Your task to perform on an android device: Add "razer blade" to the cart on amazon.com Image 0: 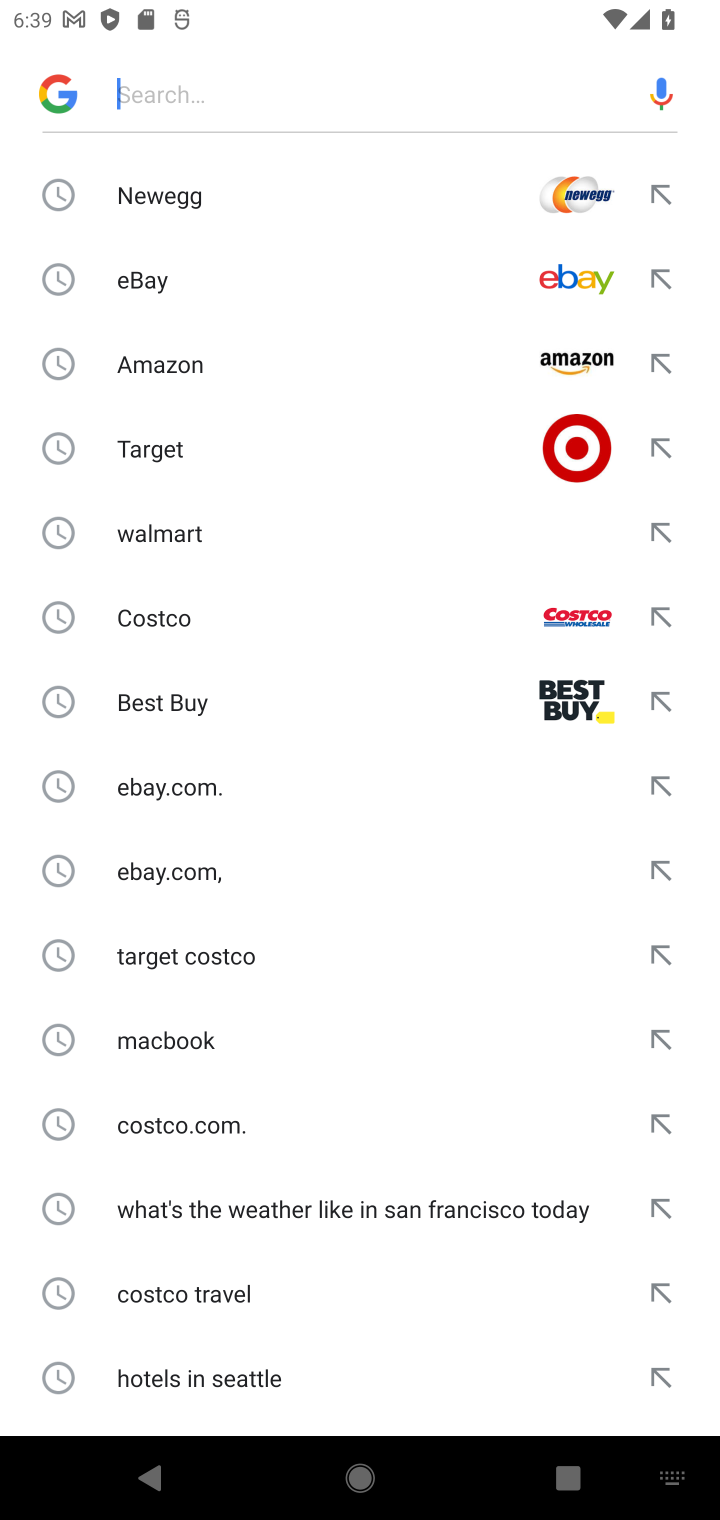
Step 0: press home button
Your task to perform on an android device: Add "razer blade" to the cart on amazon.com Image 1: 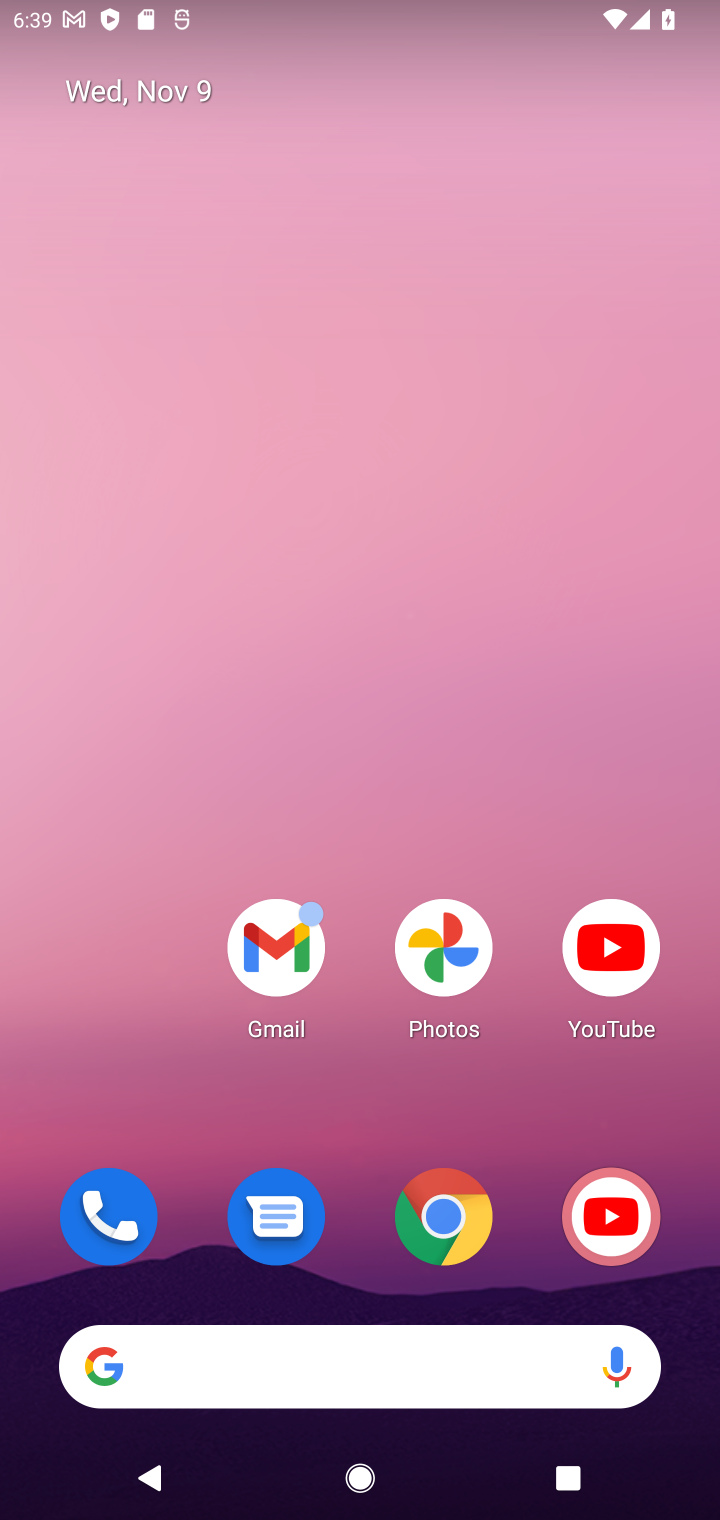
Step 1: drag from (345, 1181) to (392, 317)
Your task to perform on an android device: Add "razer blade" to the cart on amazon.com Image 2: 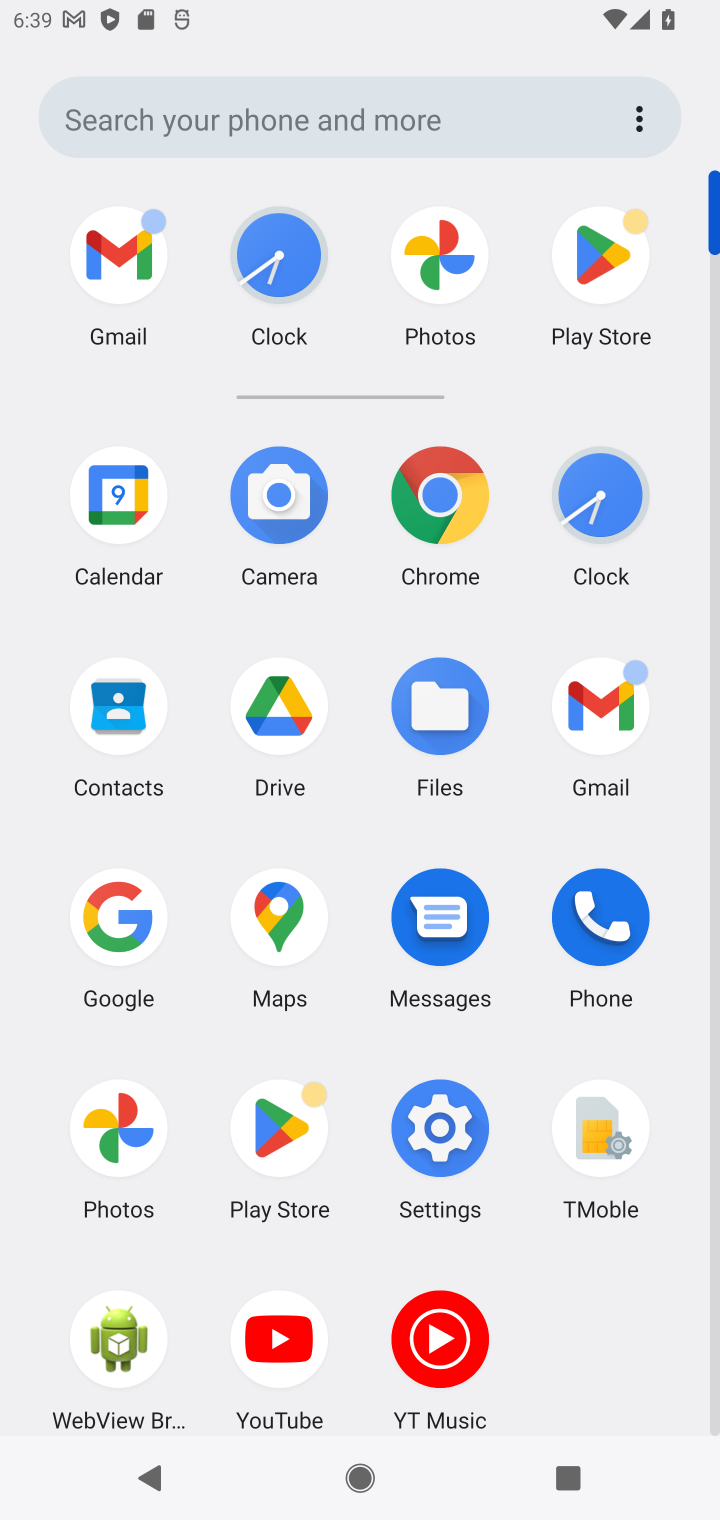
Step 2: click (438, 506)
Your task to perform on an android device: Add "razer blade" to the cart on amazon.com Image 3: 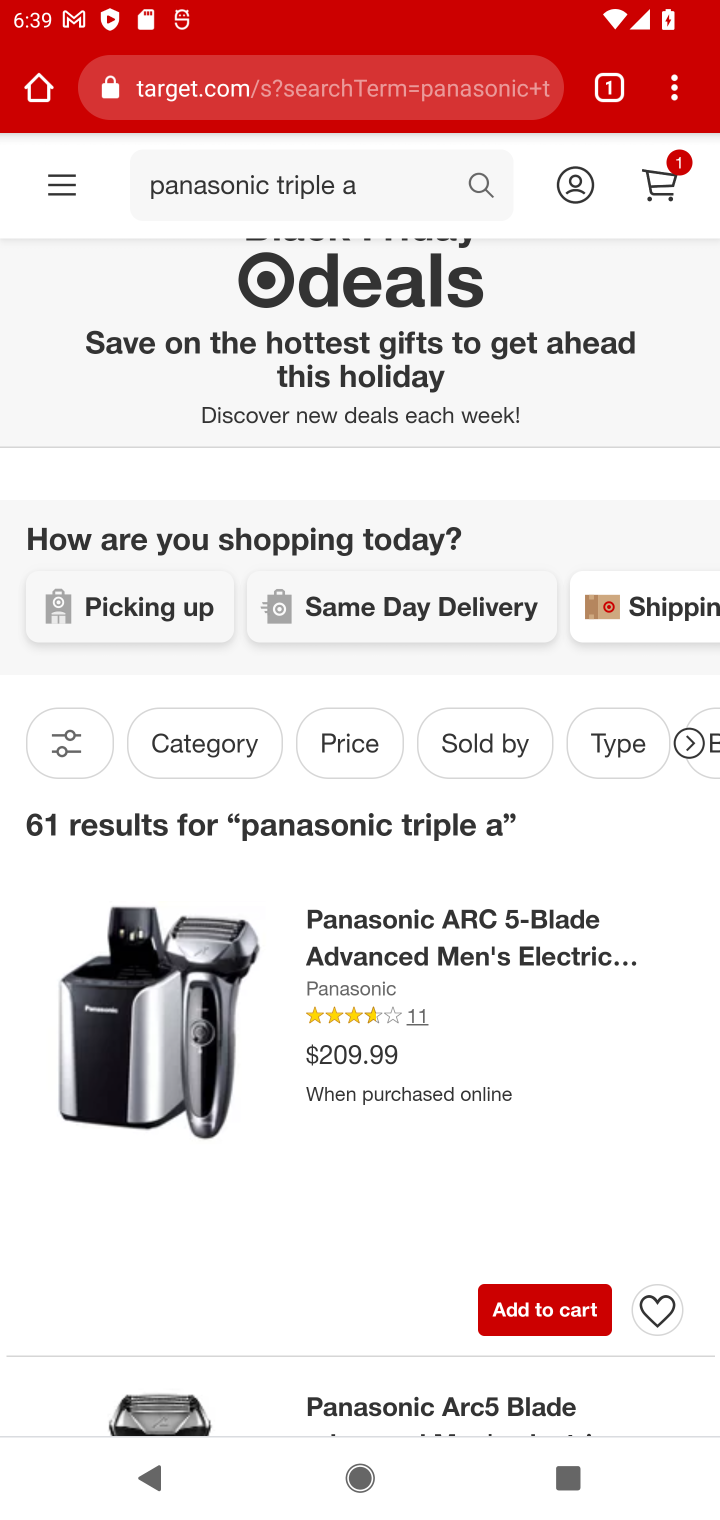
Step 3: click (400, 79)
Your task to perform on an android device: Add "razer blade" to the cart on amazon.com Image 4: 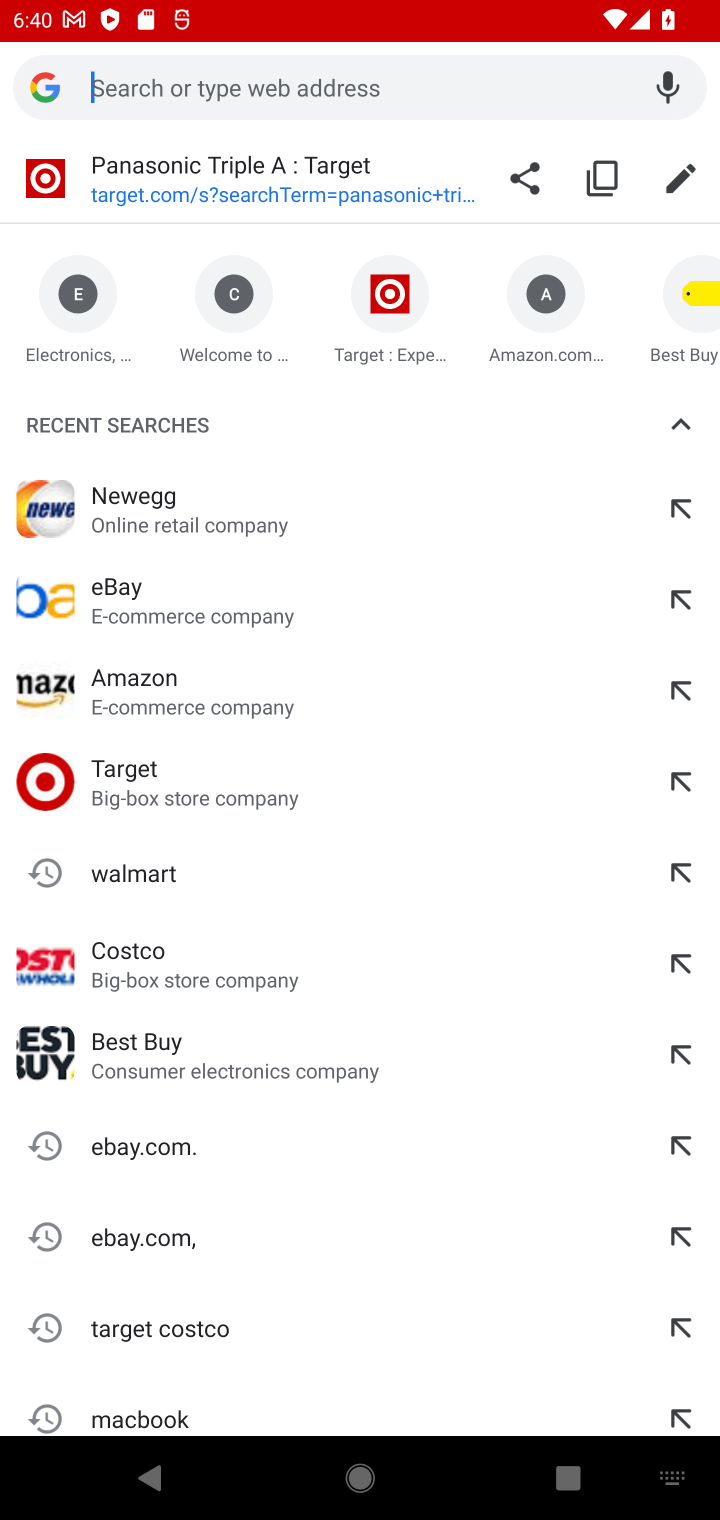
Step 4: type "amazon.com"
Your task to perform on an android device: Add "razer blade" to the cart on amazon.com Image 5: 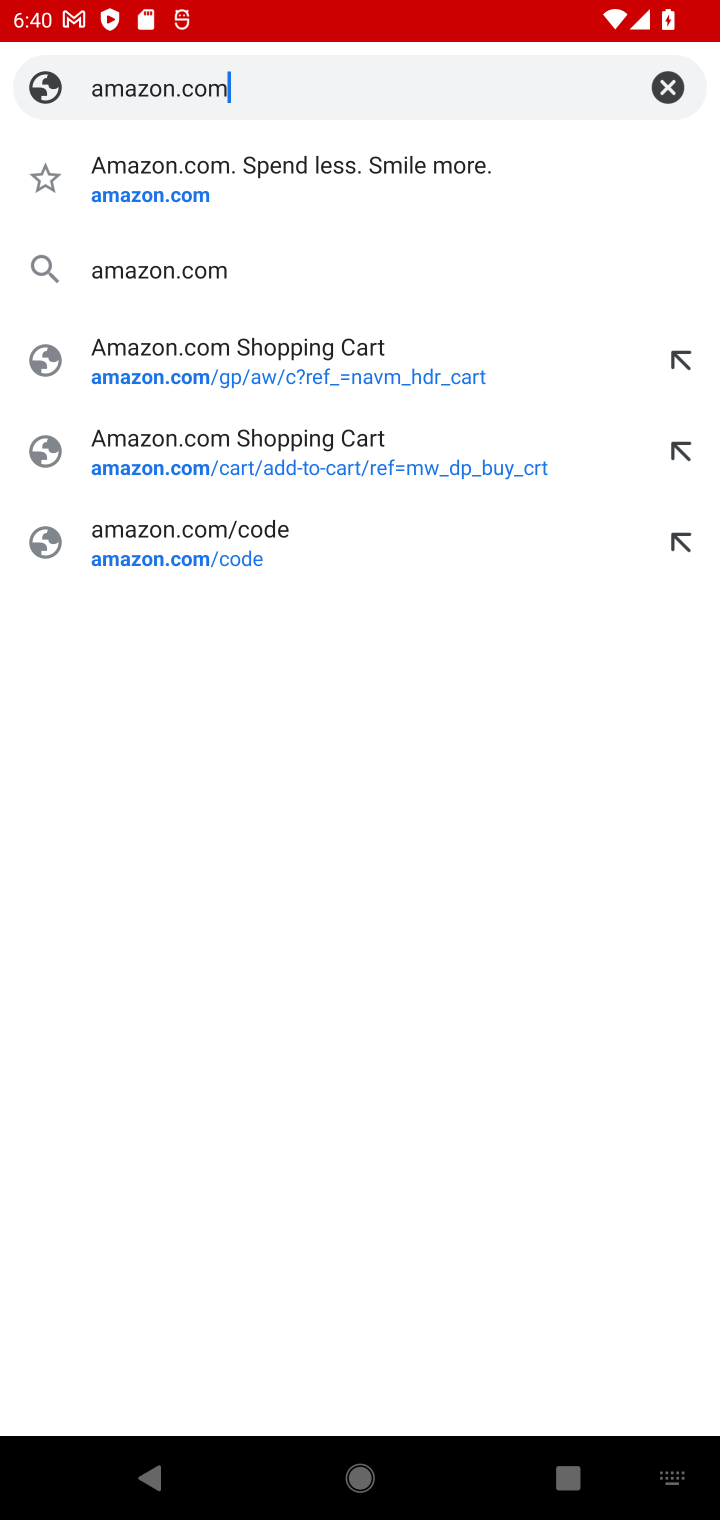
Step 5: press enter
Your task to perform on an android device: Add "razer blade" to the cart on amazon.com Image 6: 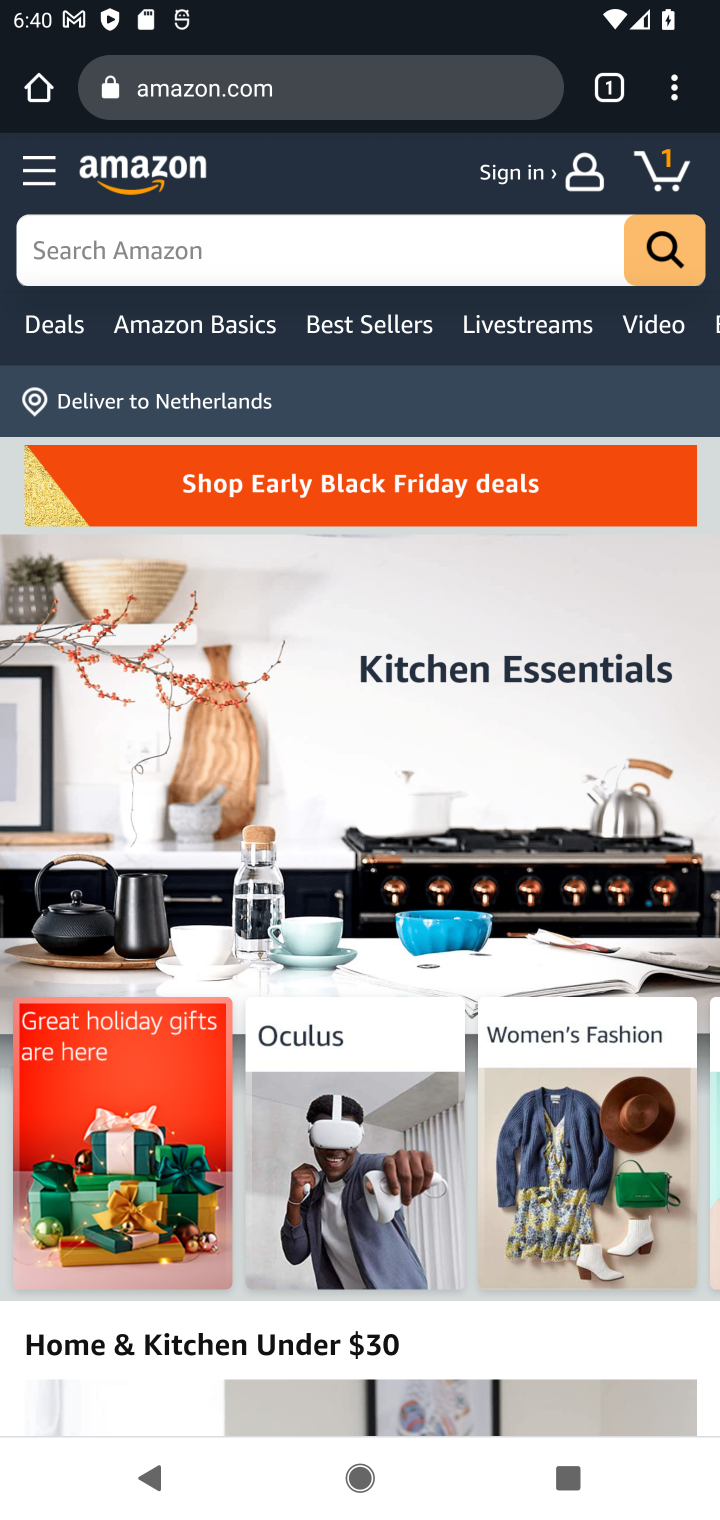
Step 6: click (458, 272)
Your task to perform on an android device: Add "razer blade" to the cart on amazon.com Image 7: 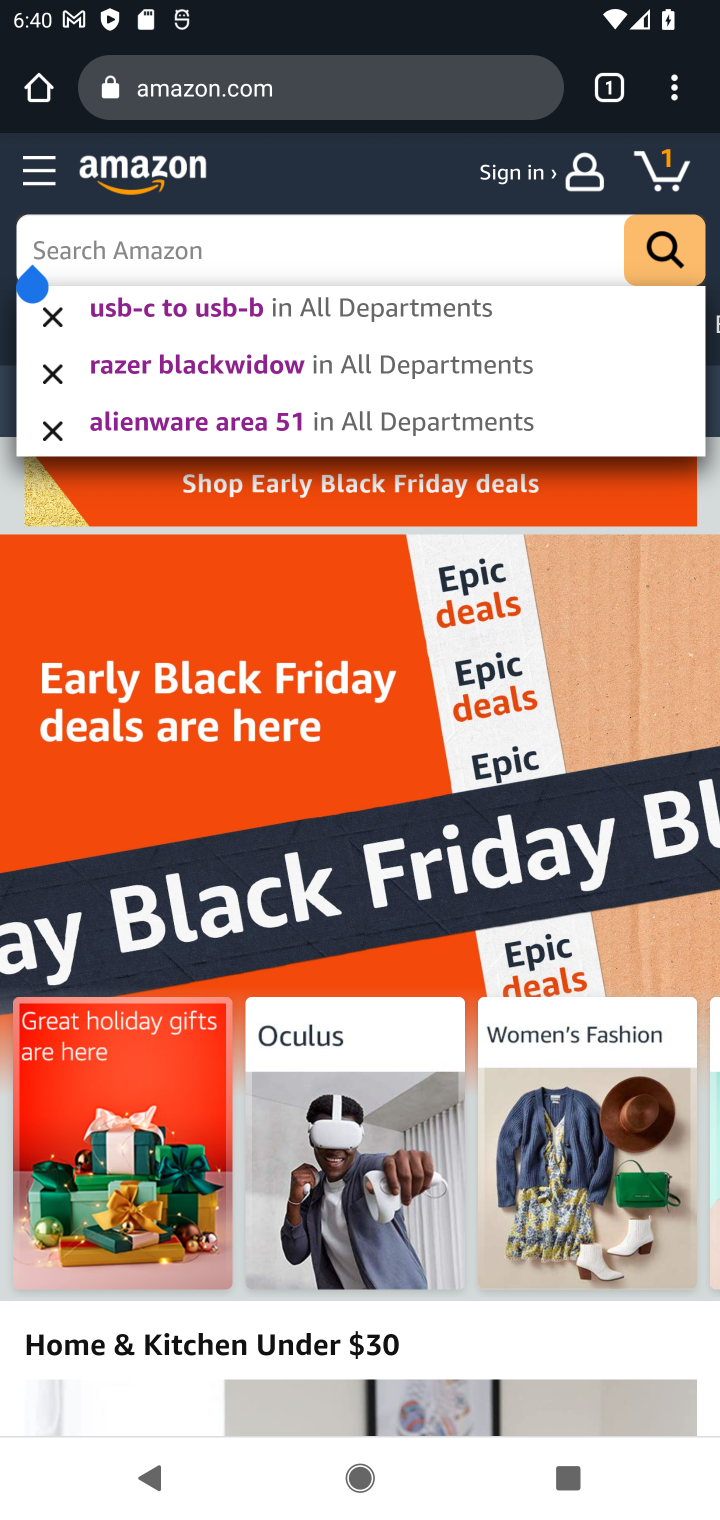
Step 7: type "razer blade"
Your task to perform on an android device: Add "razer blade" to the cart on amazon.com Image 8: 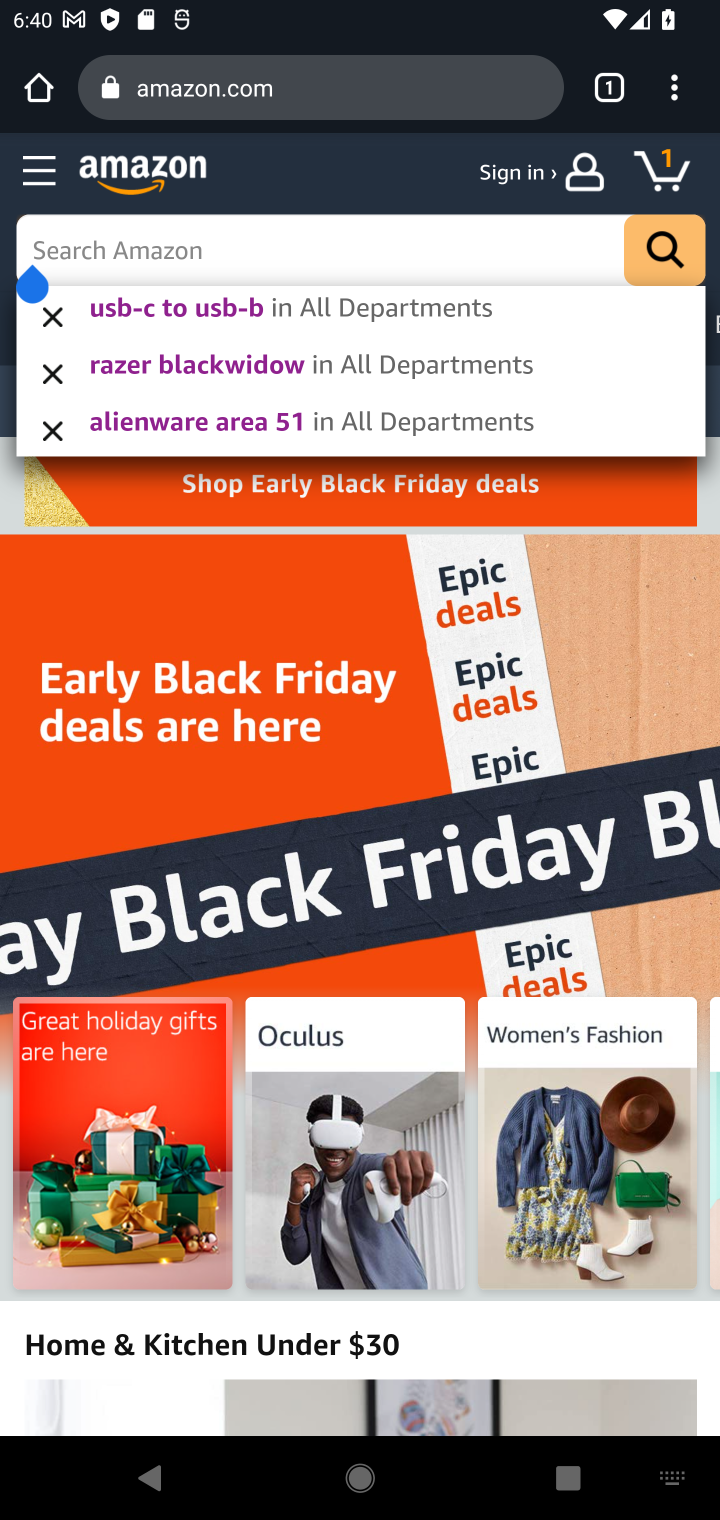
Step 8: press enter
Your task to perform on an android device: Add "razer blade" to the cart on amazon.com Image 9: 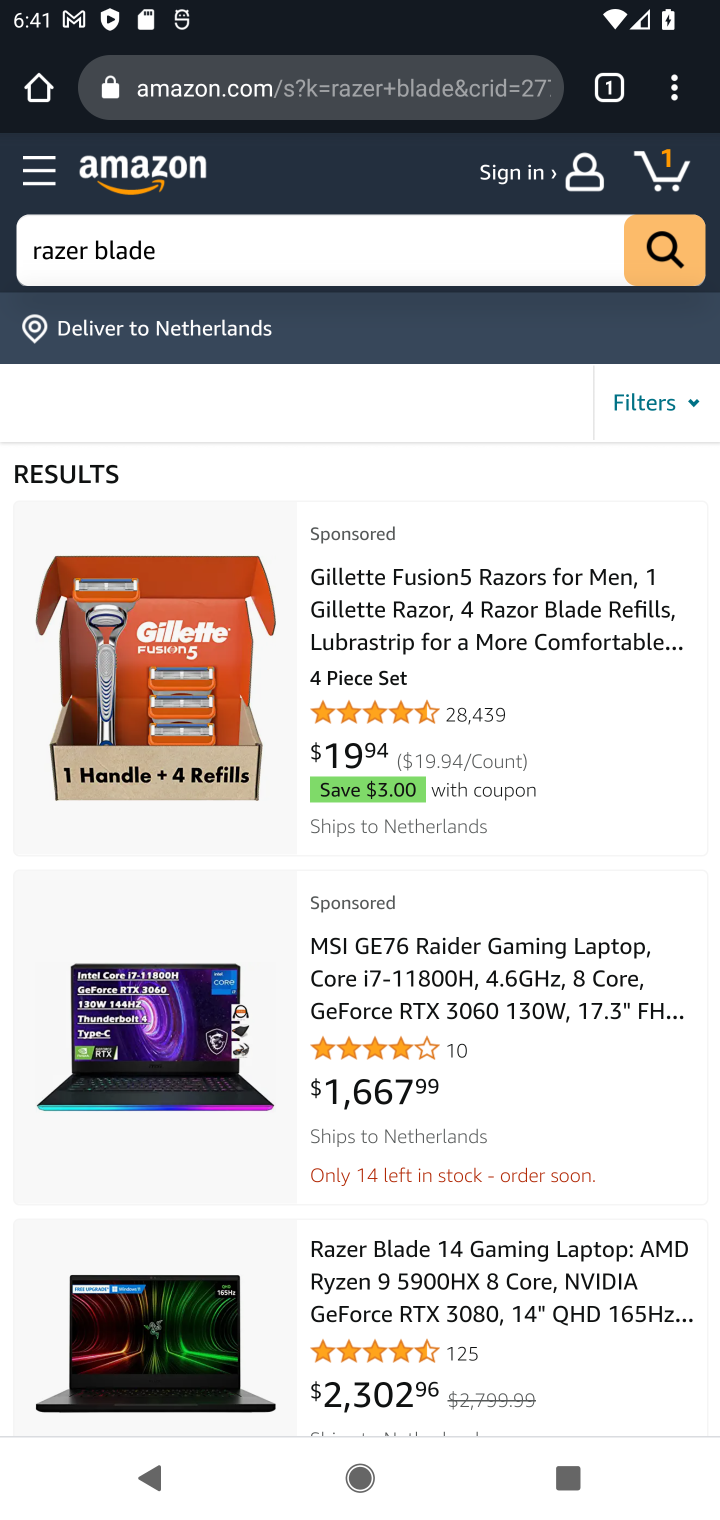
Step 9: drag from (556, 923) to (621, 591)
Your task to perform on an android device: Add "razer blade" to the cart on amazon.com Image 10: 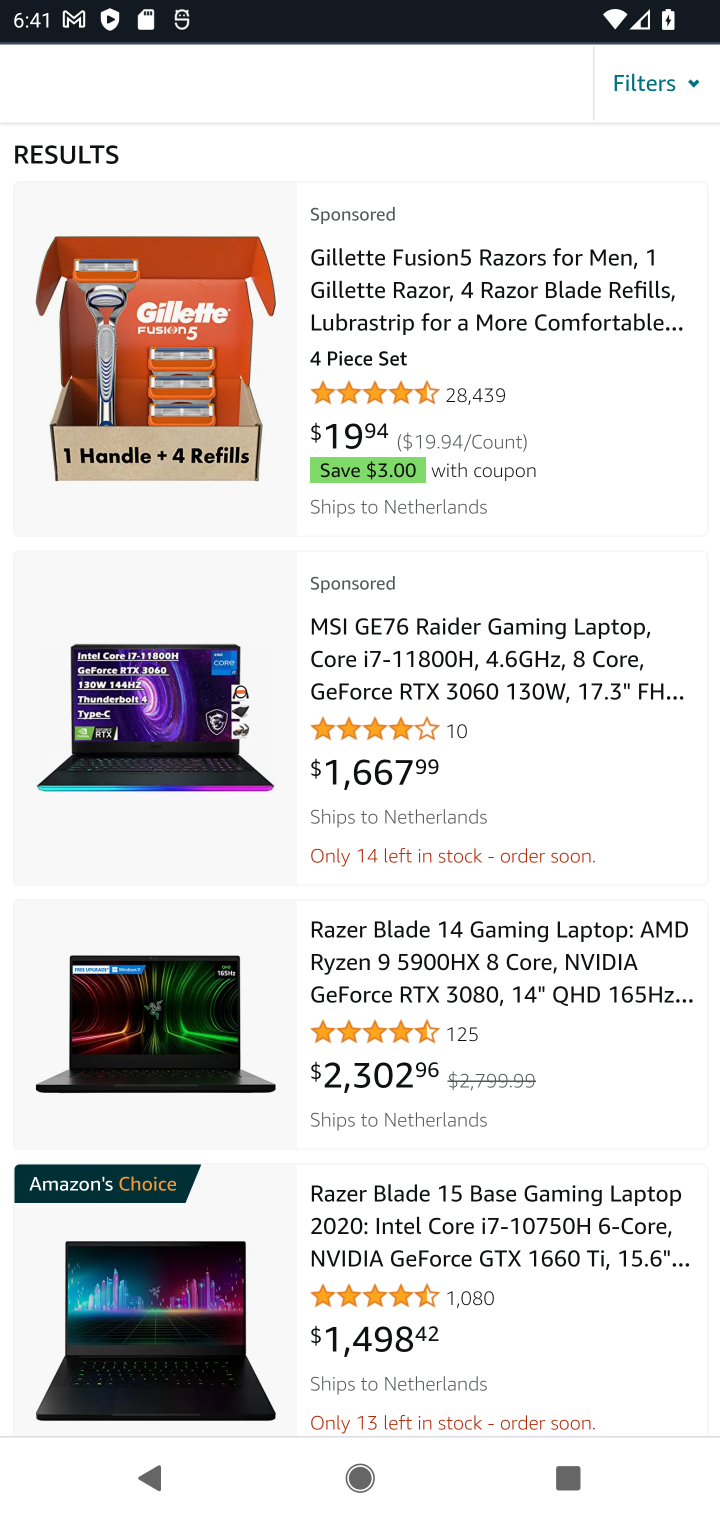
Step 10: click (441, 959)
Your task to perform on an android device: Add "razer blade" to the cart on amazon.com Image 11: 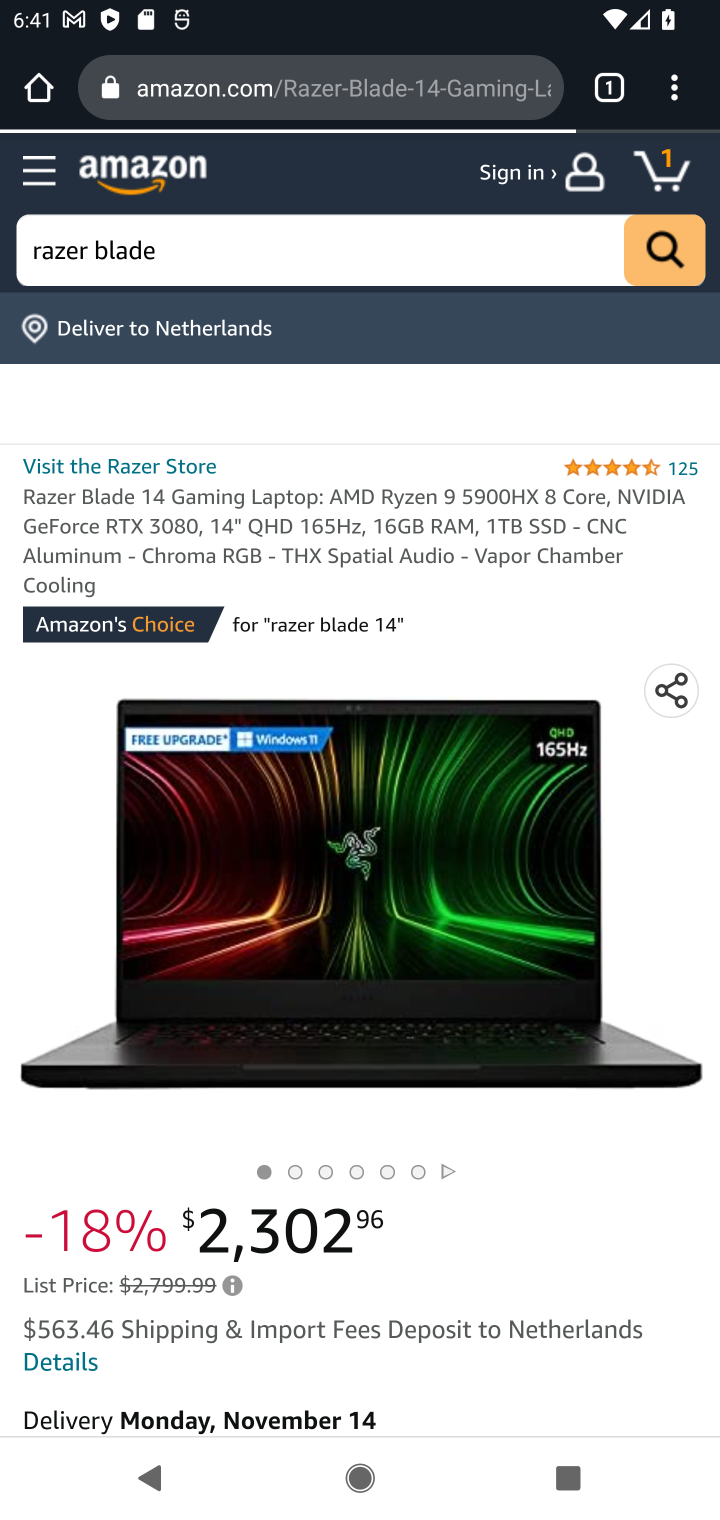
Step 11: drag from (459, 1120) to (502, 572)
Your task to perform on an android device: Add "razer blade" to the cart on amazon.com Image 12: 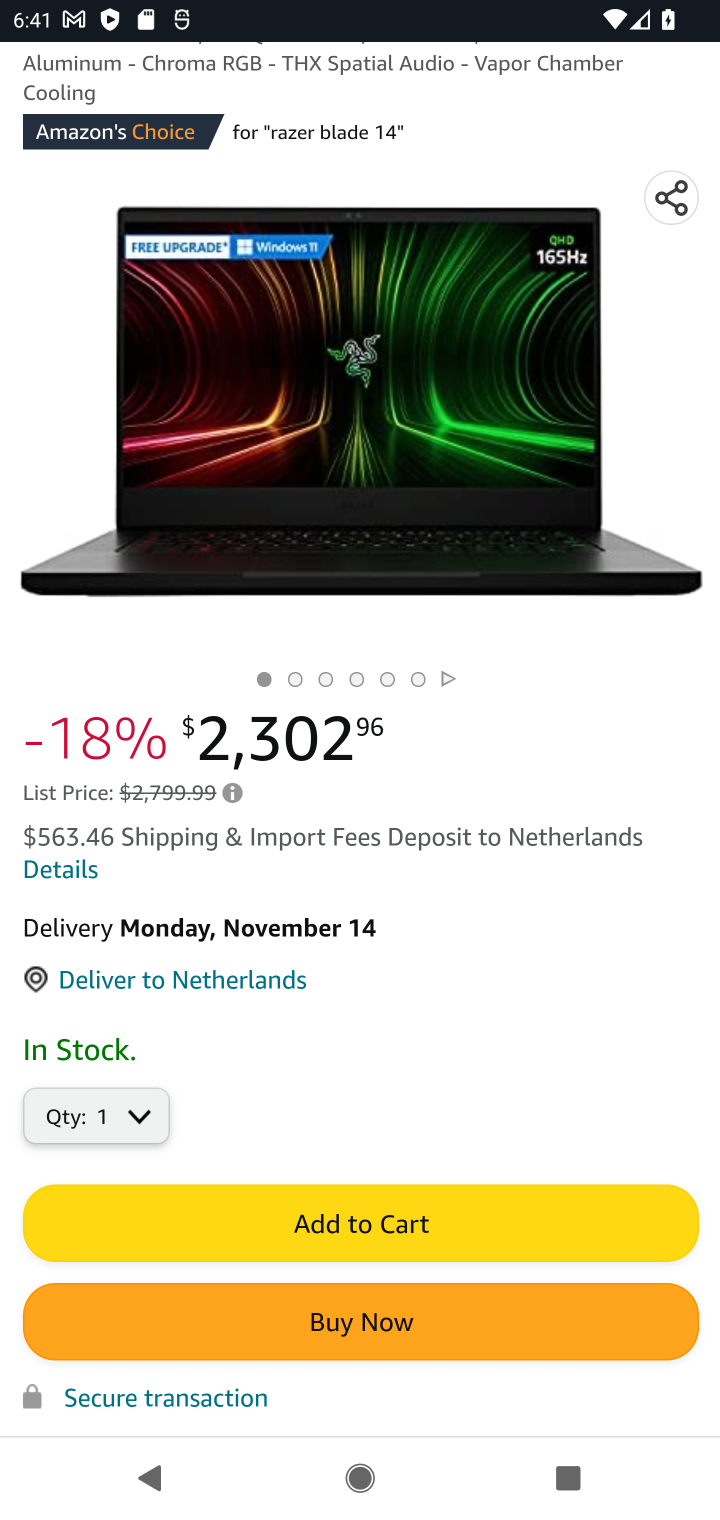
Step 12: click (500, 1229)
Your task to perform on an android device: Add "razer blade" to the cart on amazon.com Image 13: 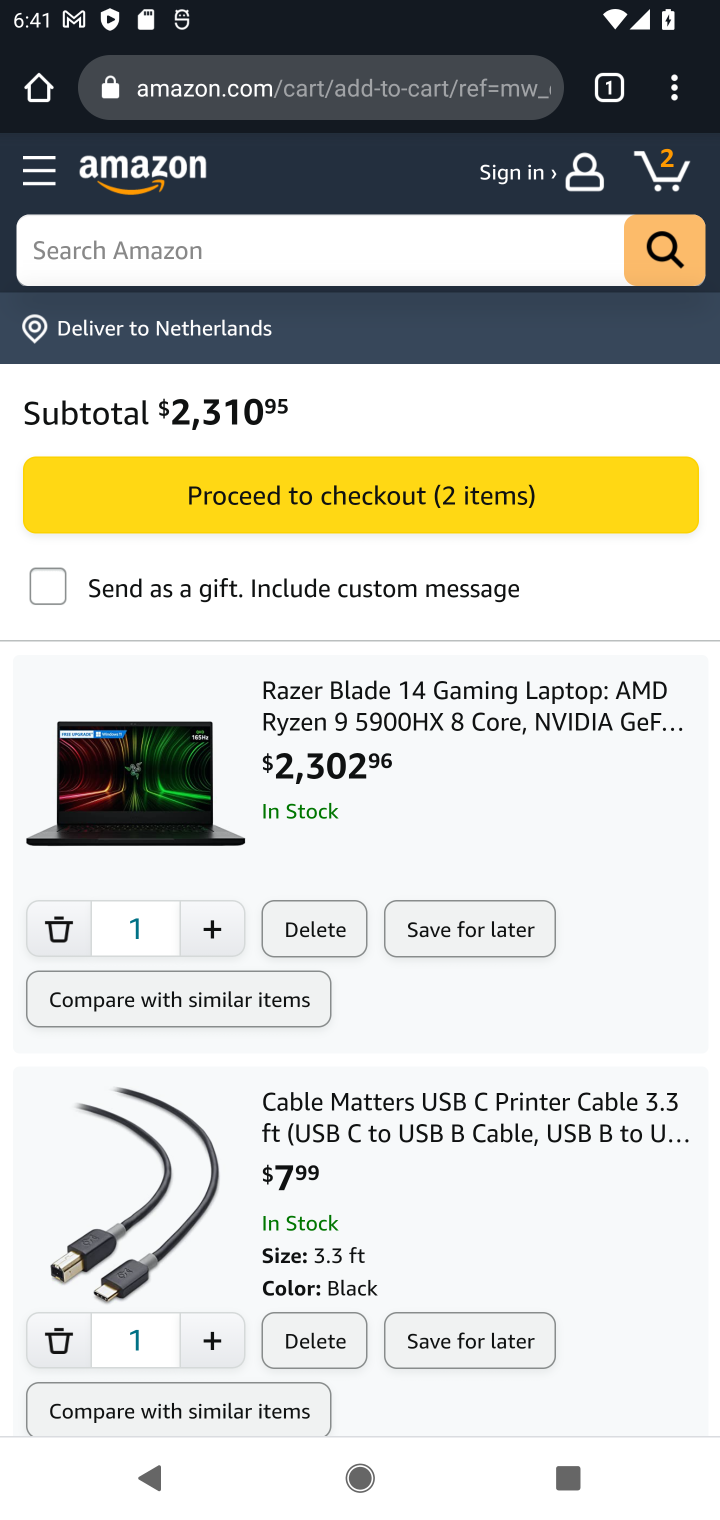
Step 13: task complete